Your task to perform on an android device: turn on data saver in the chrome app Image 0: 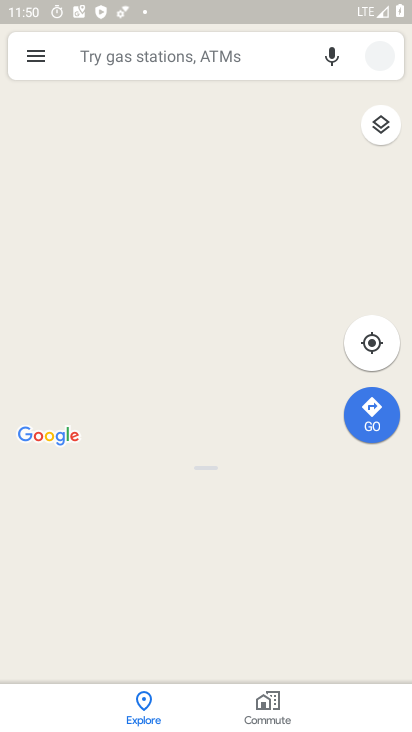
Step 0: press home button
Your task to perform on an android device: turn on data saver in the chrome app Image 1: 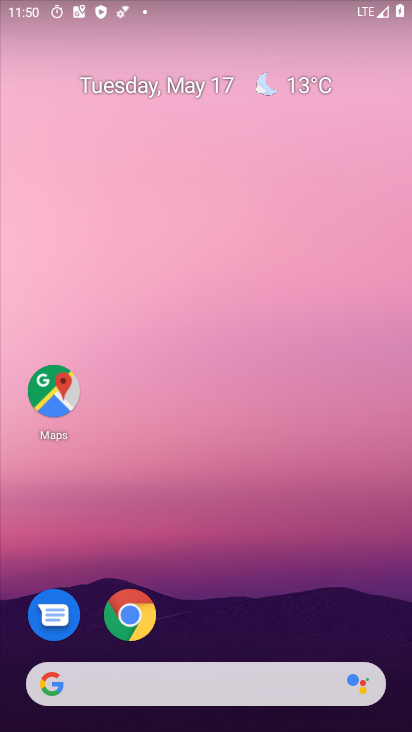
Step 1: click (137, 616)
Your task to perform on an android device: turn on data saver in the chrome app Image 2: 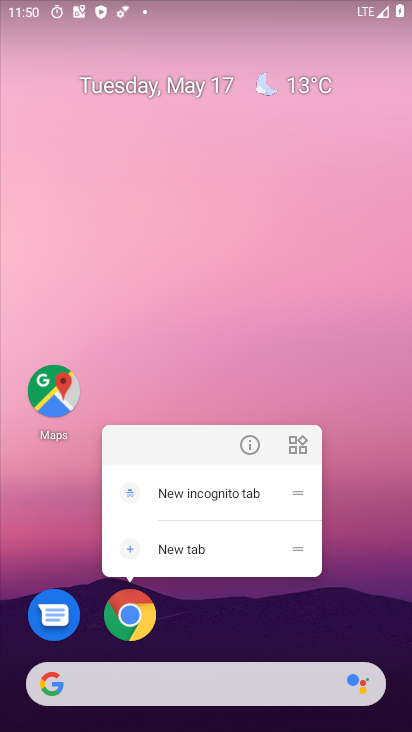
Step 2: click (126, 622)
Your task to perform on an android device: turn on data saver in the chrome app Image 3: 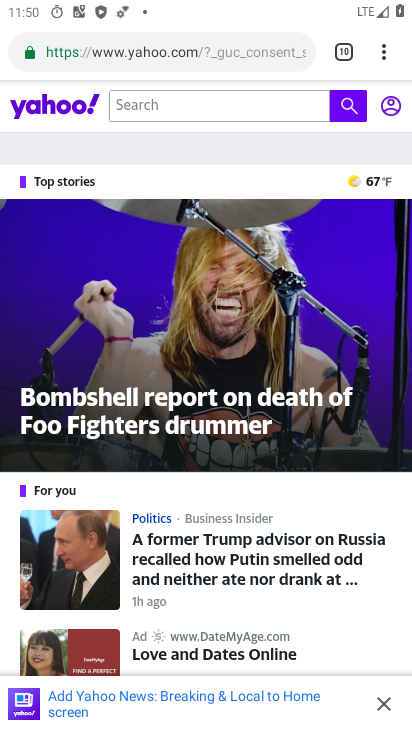
Step 3: drag from (385, 51) to (253, 622)
Your task to perform on an android device: turn on data saver in the chrome app Image 4: 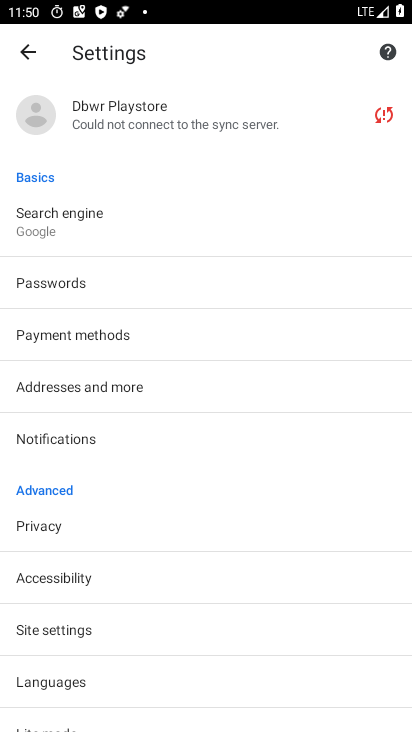
Step 4: drag from (155, 631) to (293, 359)
Your task to perform on an android device: turn on data saver in the chrome app Image 5: 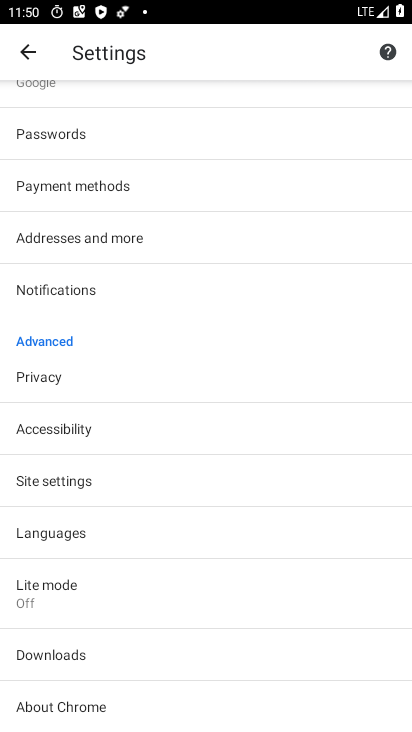
Step 5: click (87, 591)
Your task to perform on an android device: turn on data saver in the chrome app Image 6: 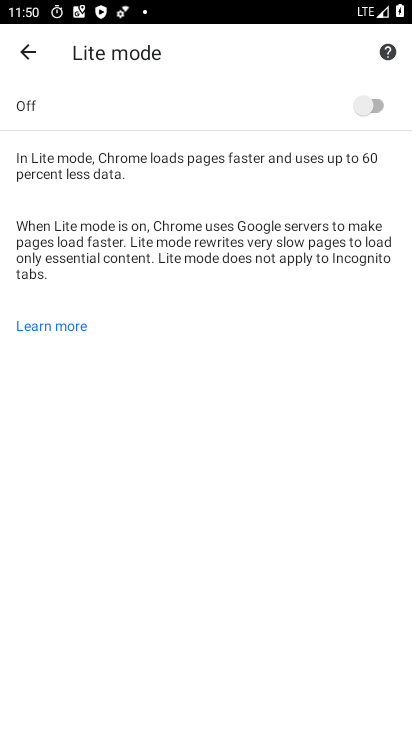
Step 6: click (379, 106)
Your task to perform on an android device: turn on data saver in the chrome app Image 7: 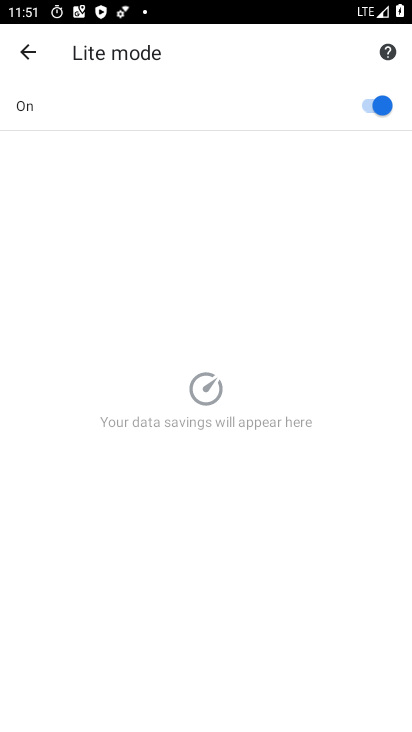
Step 7: task complete